Your task to perform on an android device: Open ESPN.com Image 0: 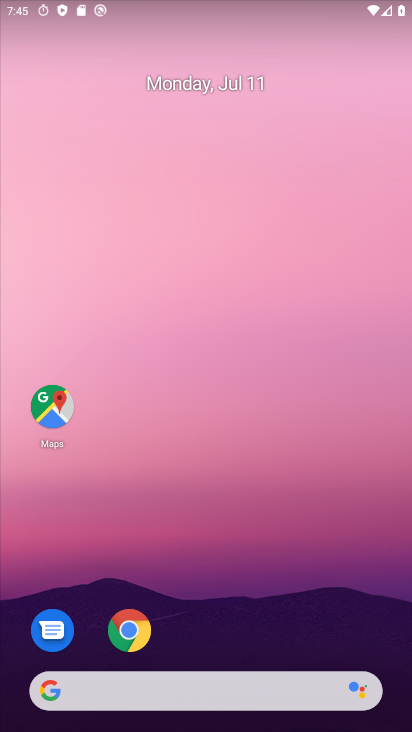
Step 0: click (130, 631)
Your task to perform on an android device: Open ESPN.com Image 1: 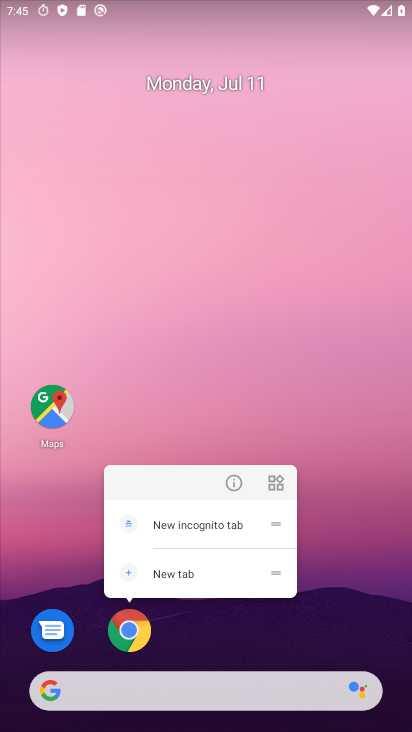
Step 1: click (130, 631)
Your task to perform on an android device: Open ESPN.com Image 2: 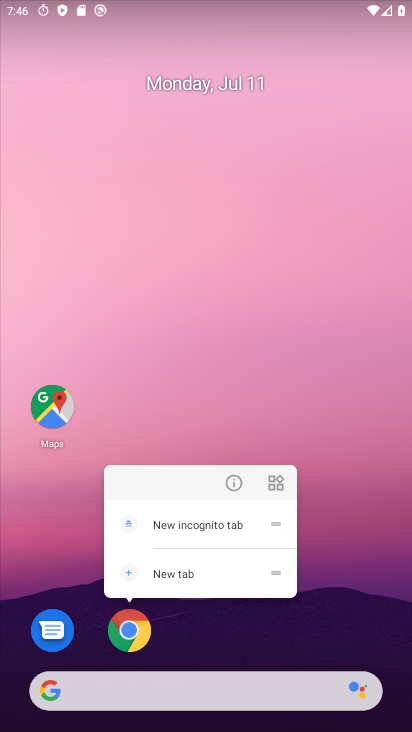
Step 2: click (127, 635)
Your task to perform on an android device: Open ESPN.com Image 3: 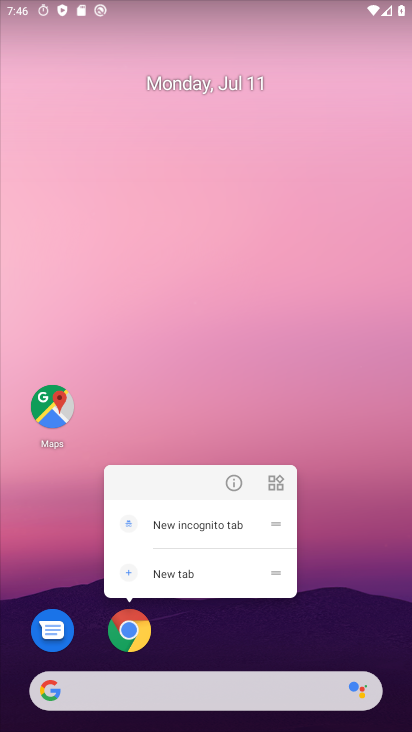
Step 3: click (127, 635)
Your task to perform on an android device: Open ESPN.com Image 4: 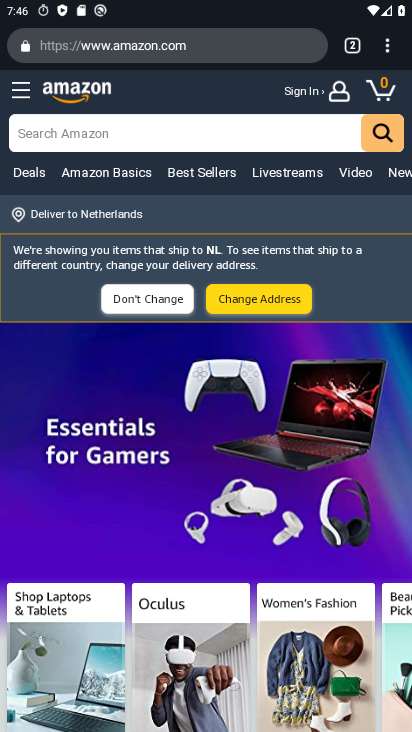
Step 4: drag from (392, 43) to (310, 84)
Your task to perform on an android device: Open ESPN.com Image 5: 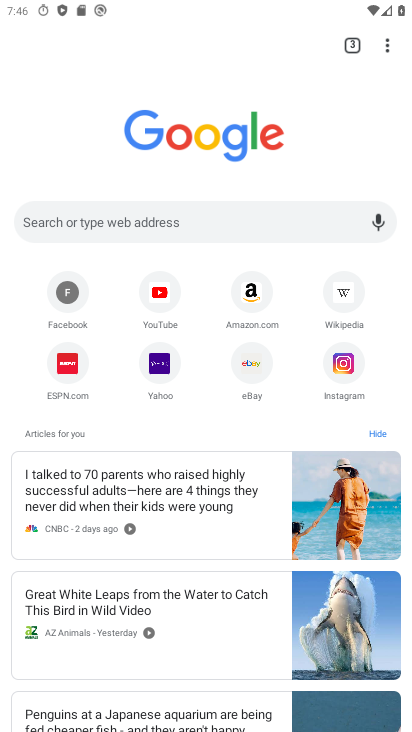
Step 5: click (72, 361)
Your task to perform on an android device: Open ESPN.com Image 6: 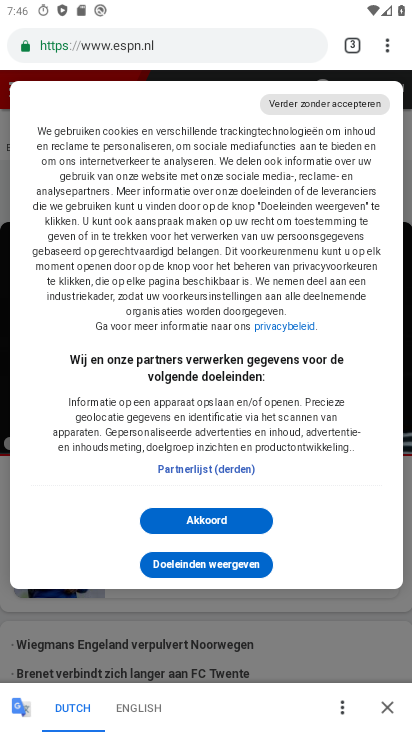
Step 6: click (147, 704)
Your task to perform on an android device: Open ESPN.com Image 7: 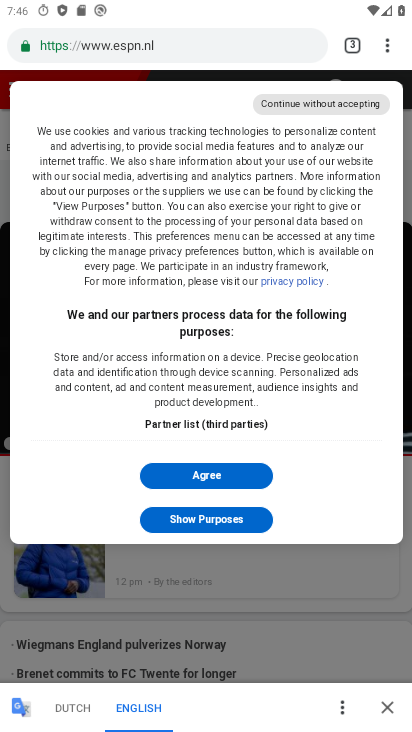
Step 7: click (208, 476)
Your task to perform on an android device: Open ESPN.com Image 8: 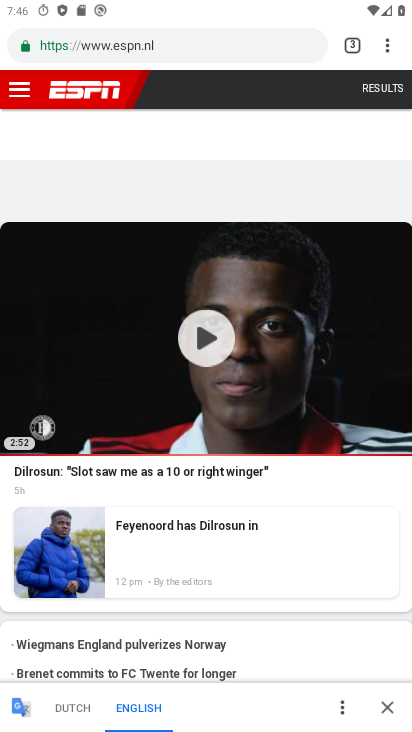
Step 8: task complete